Your task to perform on an android device: Show me popular videos on Youtube Image 0: 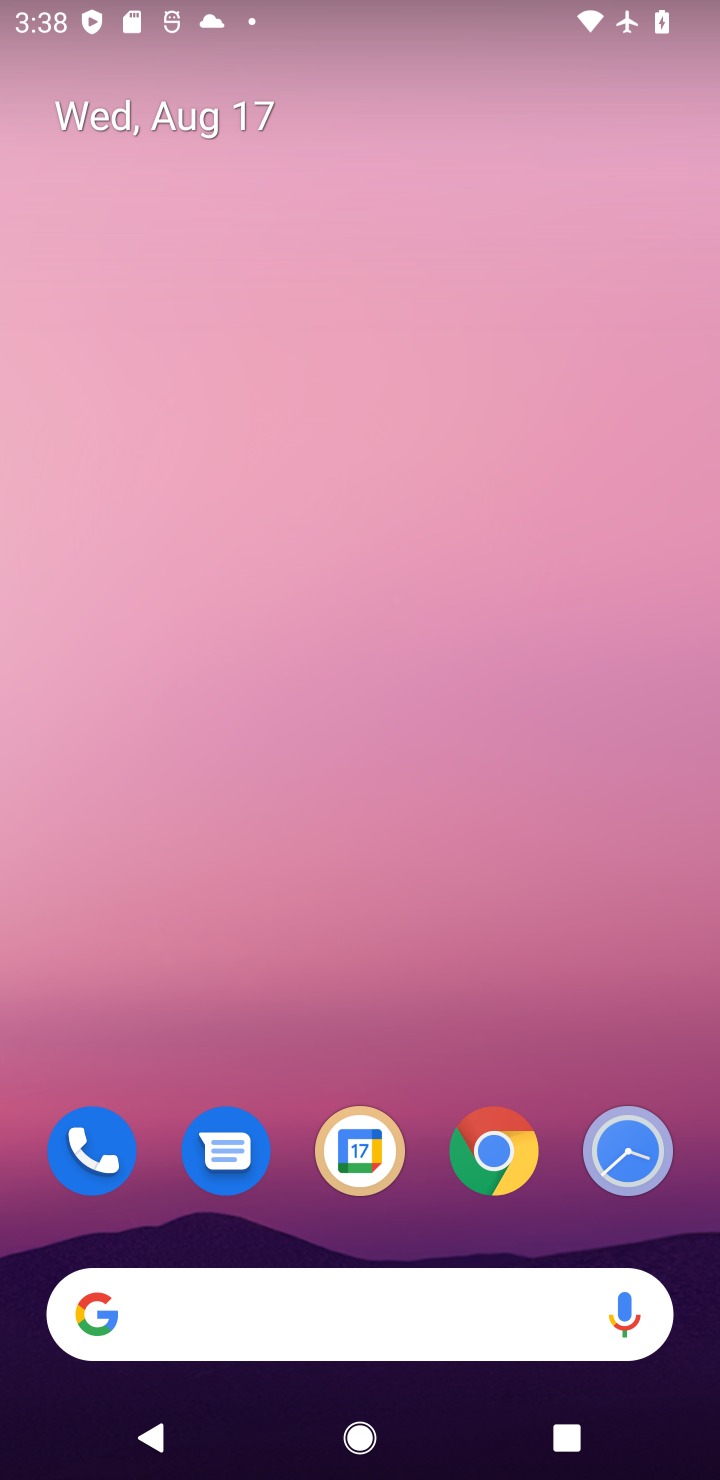
Step 0: drag from (313, 854) to (328, 341)
Your task to perform on an android device: Show me popular videos on Youtube Image 1: 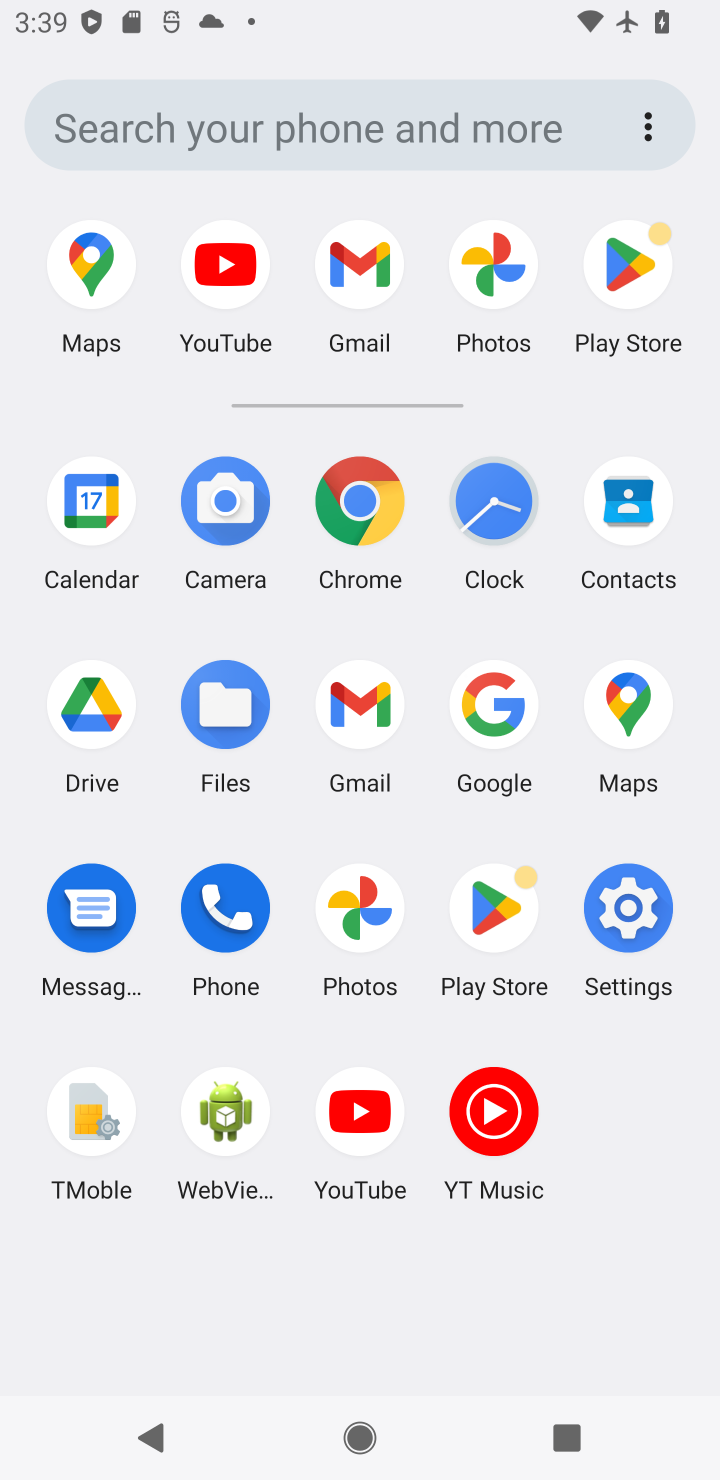
Step 1: click (361, 1089)
Your task to perform on an android device: Show me popular videos on Youtube Image 2: 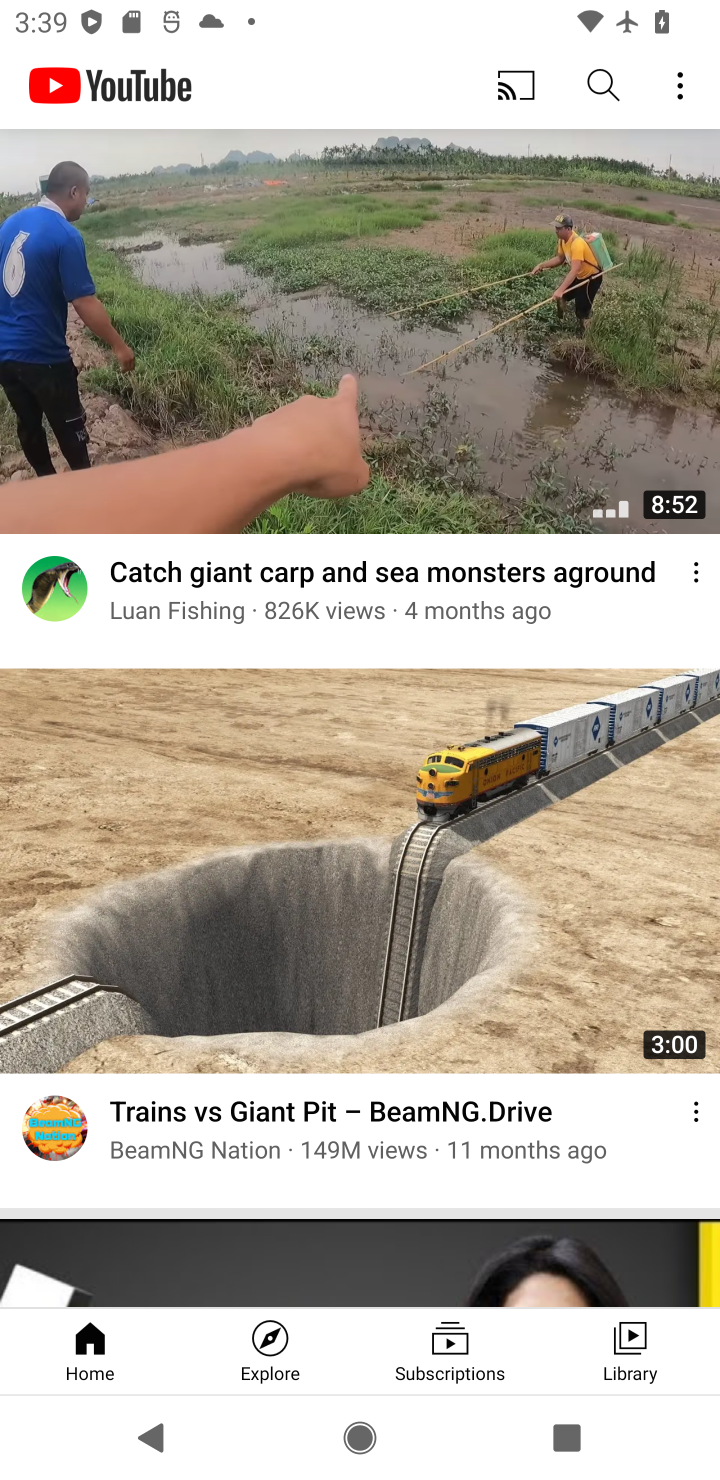
Step 2: click (595, 81)
Your task to perform on an android device: Show me popular videos on Youtube Image 3: 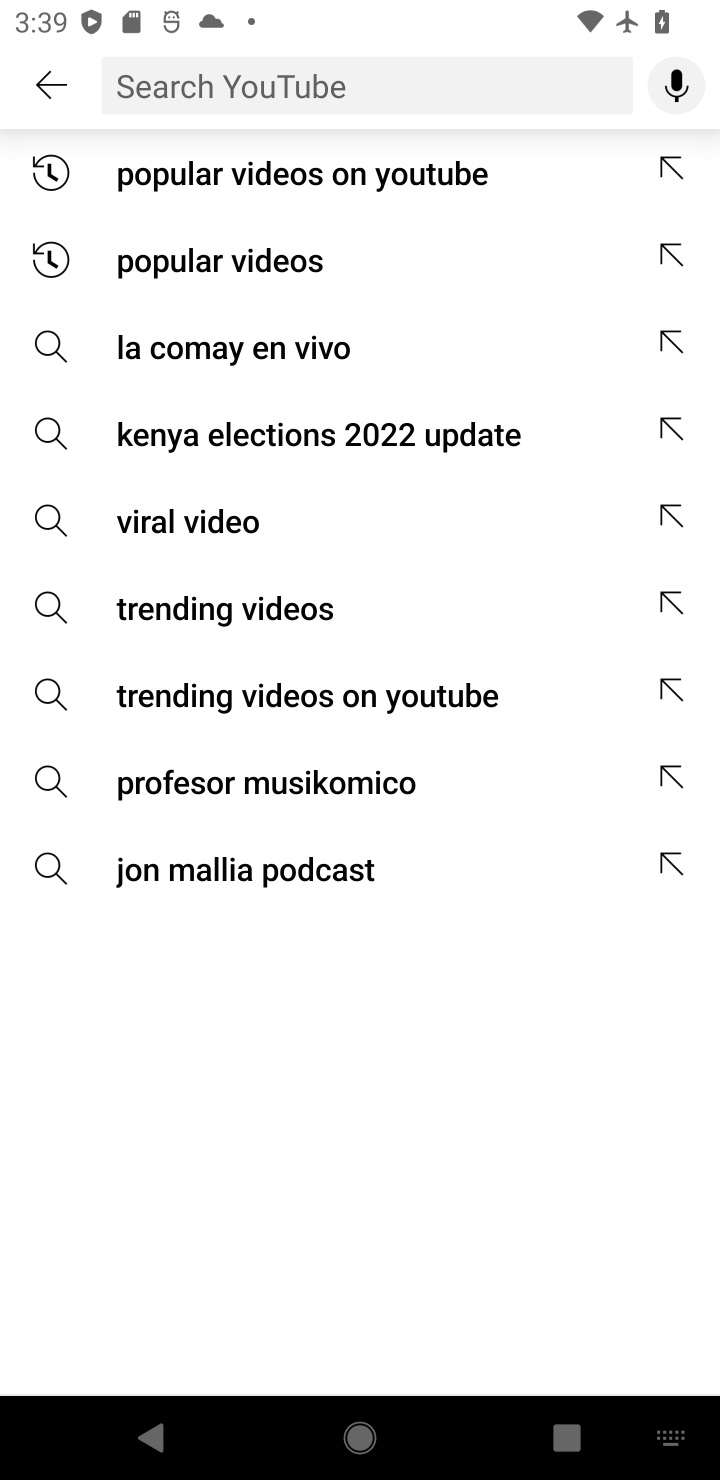
Step 3: type "india "
Your task to perform on an android device: Show me popular videos on Youtube Image 4: 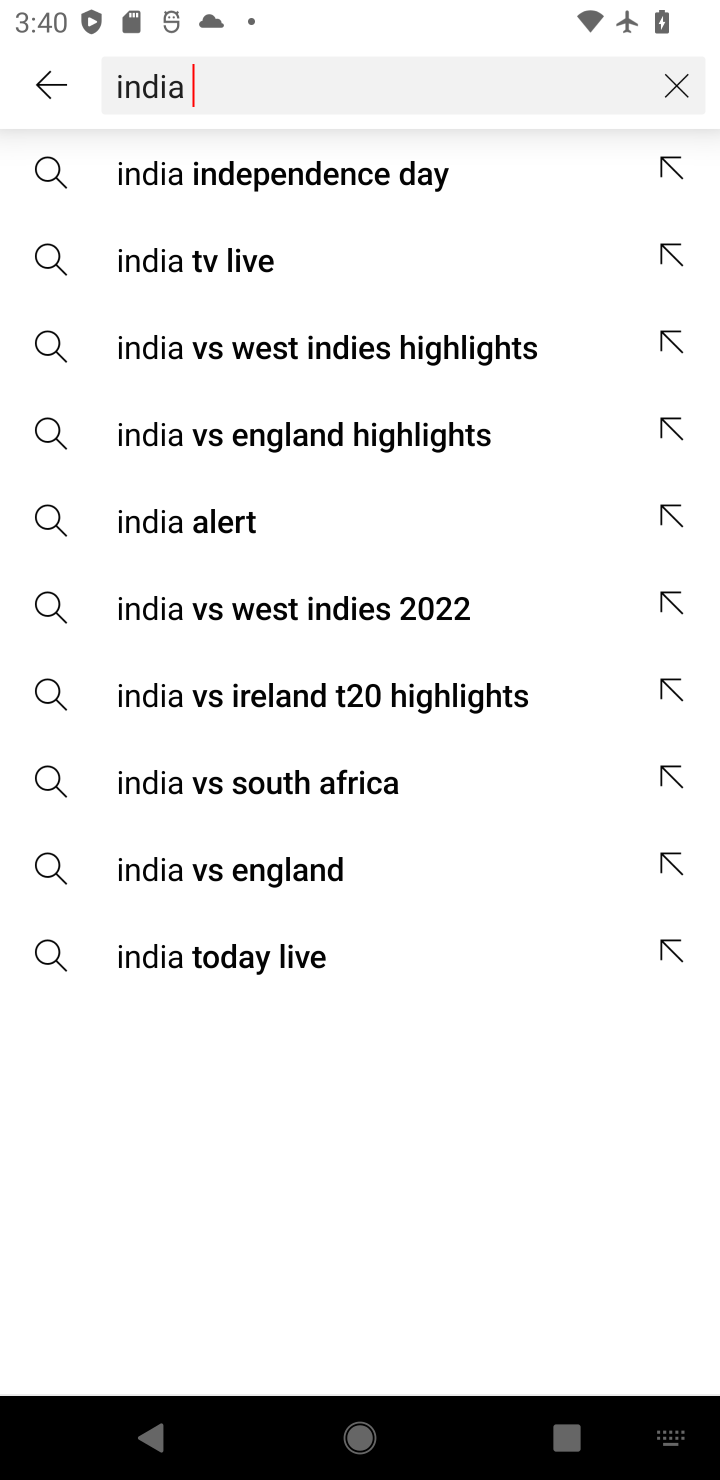
Step 4: click (207, 239)
Your task to perform on an android device: Show me popular videos on Youtube Image 5: 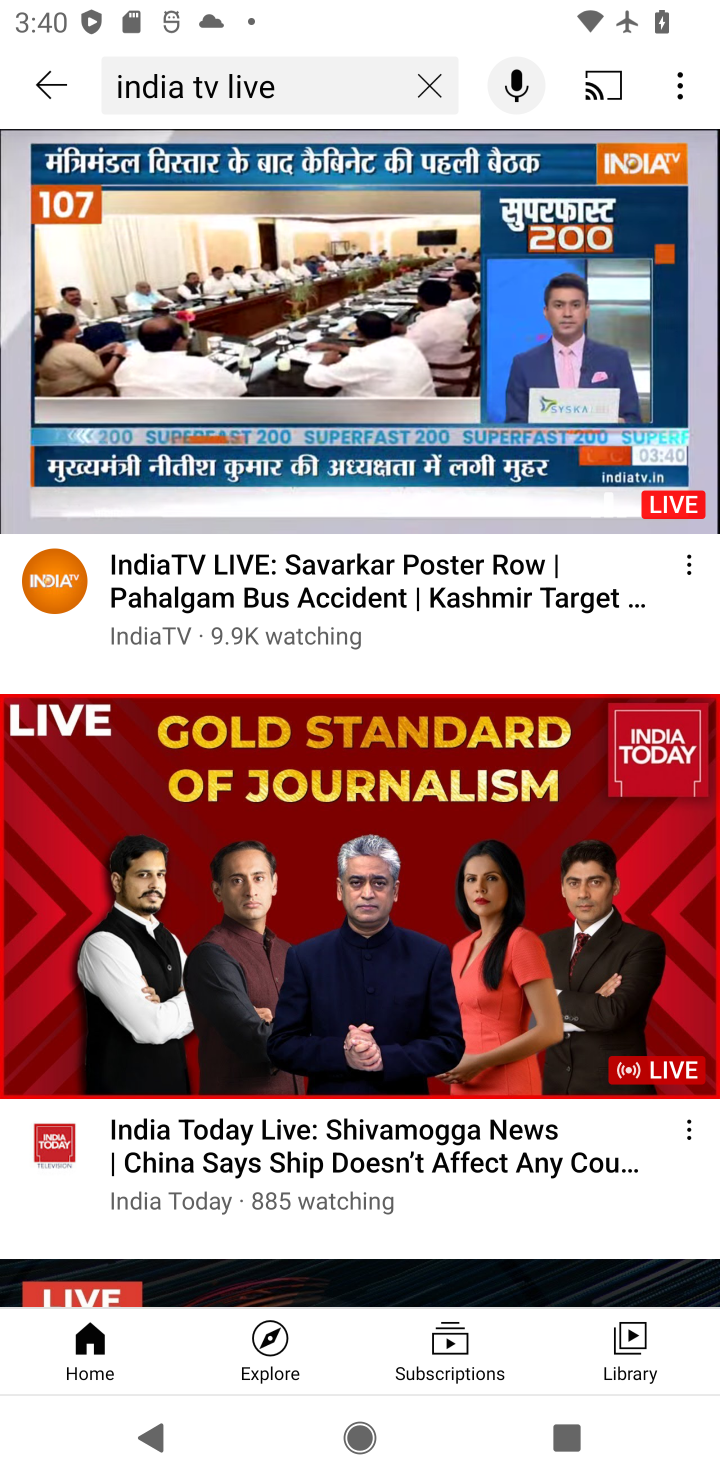
Step 5: task complete